Your task to perform on an android device: turn on javascript in the chrome app Image 0: 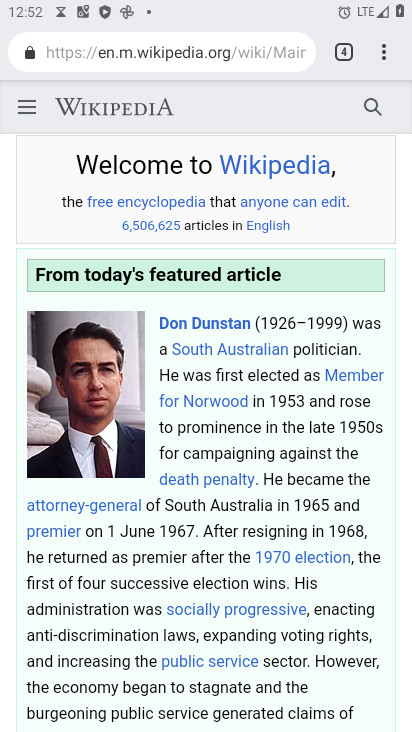
Step 0: drag from (274, 538) to (243, 172)
Your task to perform on an android device: turn on javascript in the chrome app Image 1: 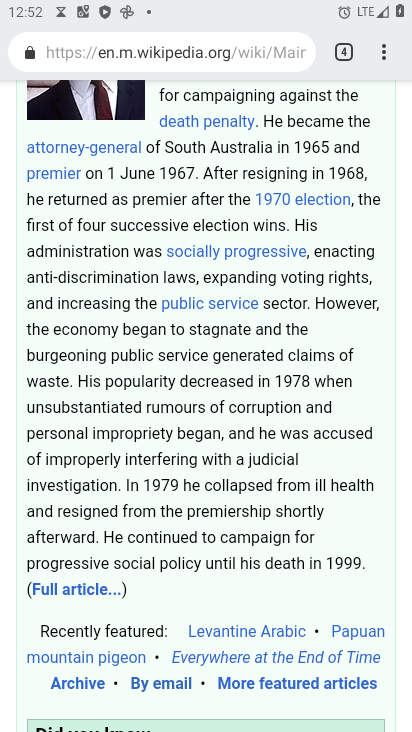
Step 1: press home button
Your task to perform on an android device: turn on javascript in the chrome app Image 2: 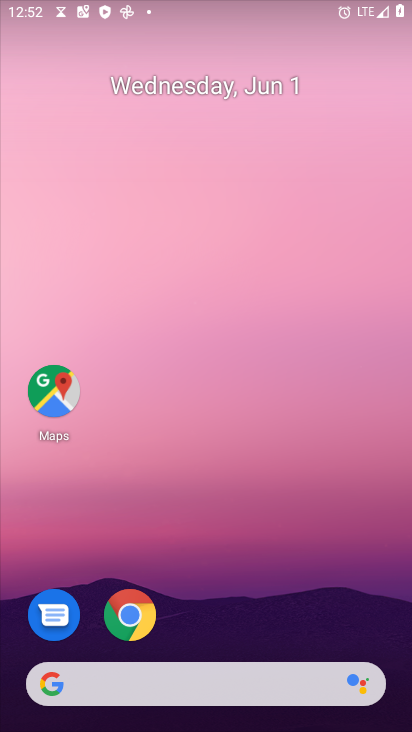
Step 2: drag from (310, 432) to (332, 14)
Your task to perform on an android device: turn on javascript in the chrome app Image 3: 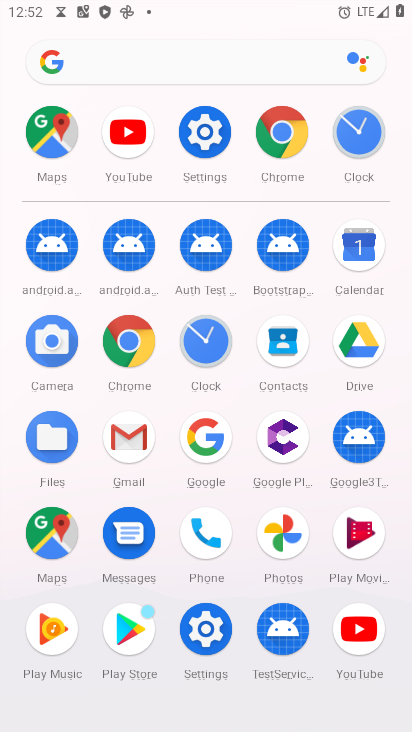
Step 3: click (301, 150)
Your task to perform on an android device: turn on javascript in the chrome app Image 4: 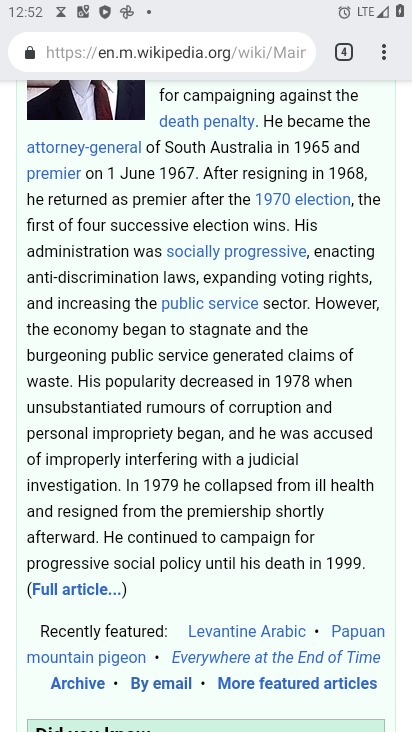
Step 4: drag from (381, 55) to (242, 613)
Your task to perform on an android device: turn on javascript in the chrome app Image 5: 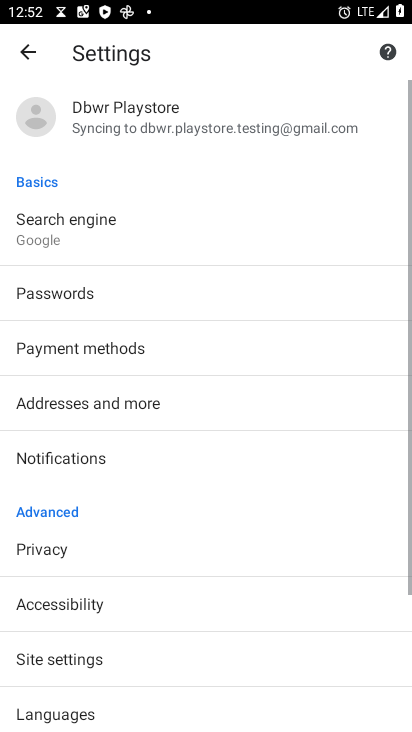
Step 5: drag from (242, 613) to (163, 29)
Your task to perform on an android device: turn on javascript in the chrome app Image 6: 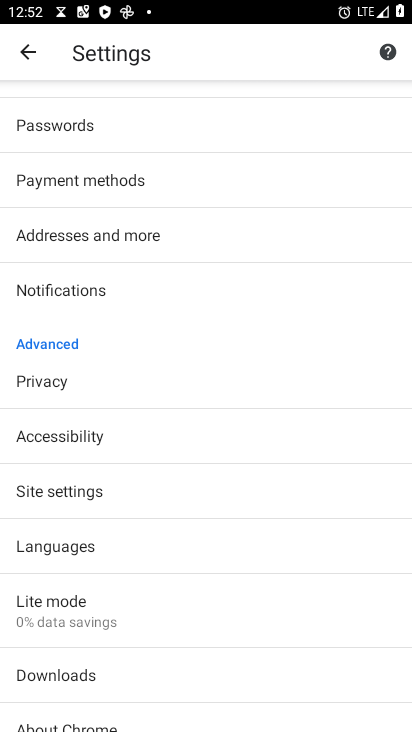
Step 6: click (98, 493)
Your task to perform on an android device: turn on javascript in the chrome app Image 7: 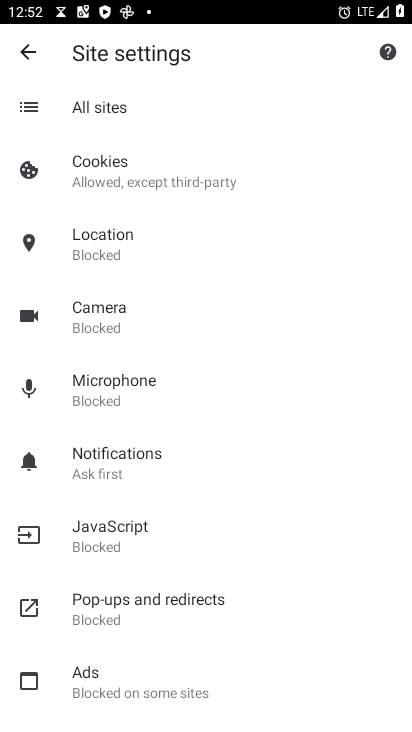
Step 7: click (108, 547)
Your task to perform on an android device: turn on javascript in the chrome app Image 8: 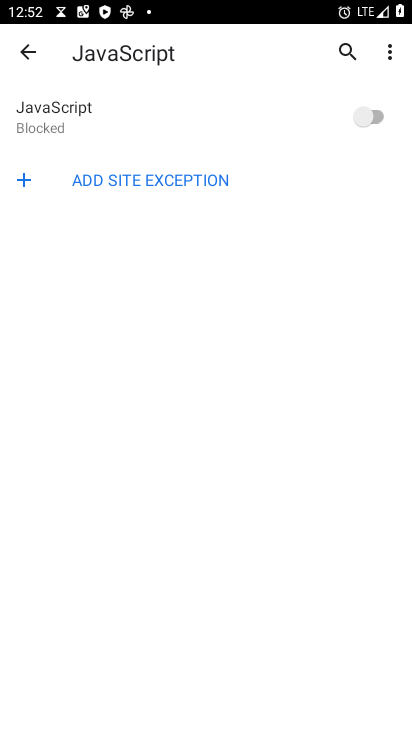
Step 8: click (374, 116)
Your task to perform on an android device: turn on javascript in the chrome app Image 9: 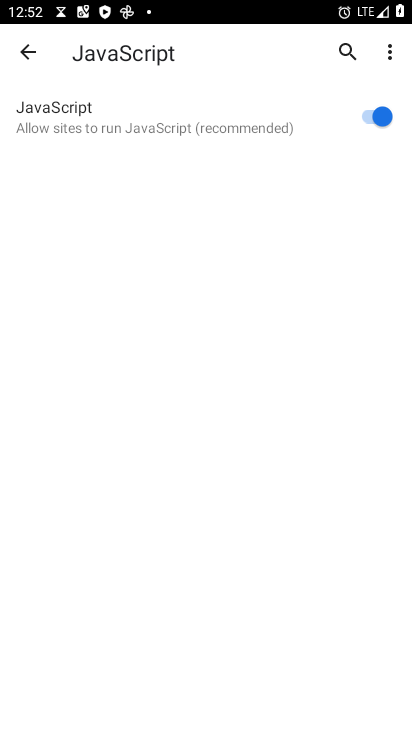
Step 9: task complete